Your task to perform on an android device: Open calendar and show me the fourth week of next month Image 0: 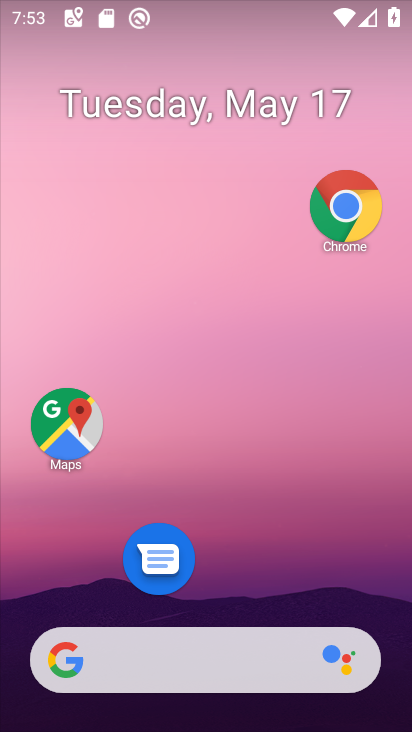
Step 0: drag from (204, 639) to (199, 79)
Your task to perform on an android device: Open calendar and show me the fourth week of next month Image 1: 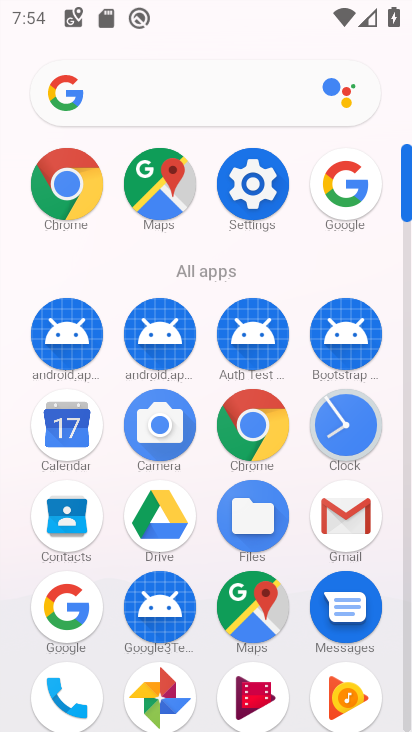
Step 1: drag from (213, 388) to (318, 44)
Your task to perform on an android device: Open calendar and show me the fourth week of next month Image 2: 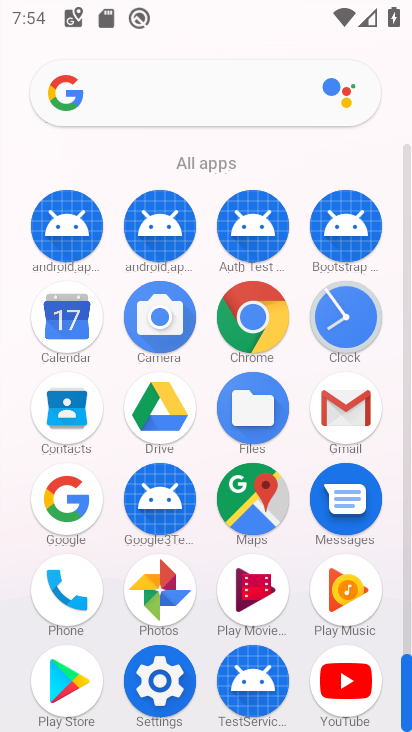
Step 2: click (65, 325)
Your task to perform on an android device: Open calendar and show me the fourth week of next month Image 3: 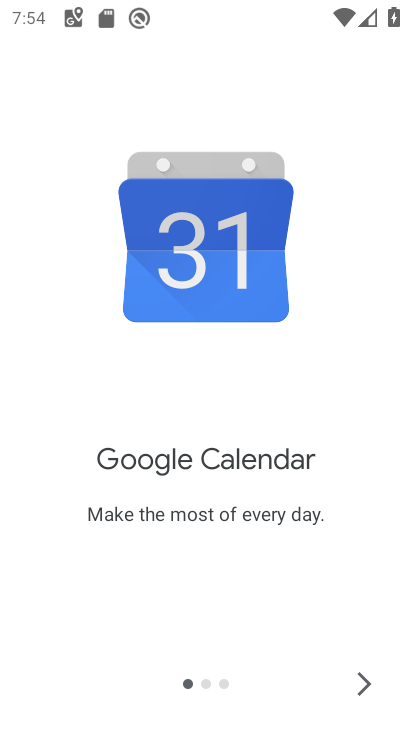
Step 3: click (370, 687)
Your task to perform on an android device: Open calendar and show me the fourth week of next month Image 4: 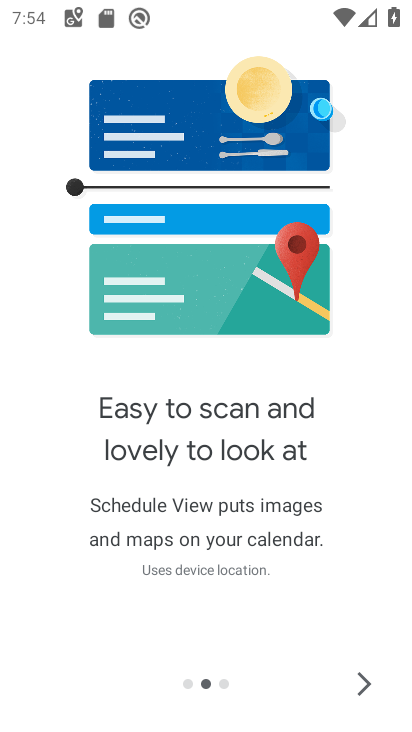
Step 4: click (373, 694)
Your task to perform on an android device: Open calendar and show me the fourth week of next month Image 5: 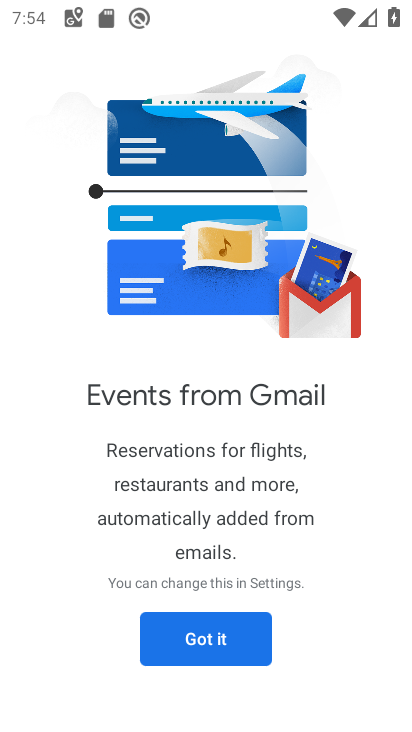
Step 5: click (224, 644)
Your task to perform on an android device: Open calendar and show me the fourth week of next month Image 6: 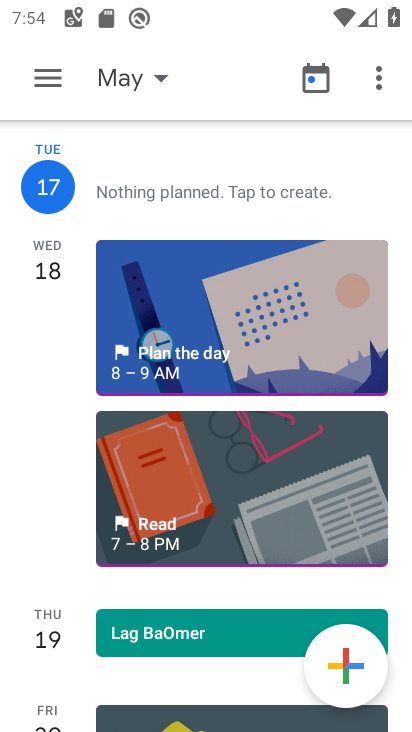
Step 6: click (148, 92)
Your task to perform on an android device: Open calendar and show me the fourth week of next month Image 7: 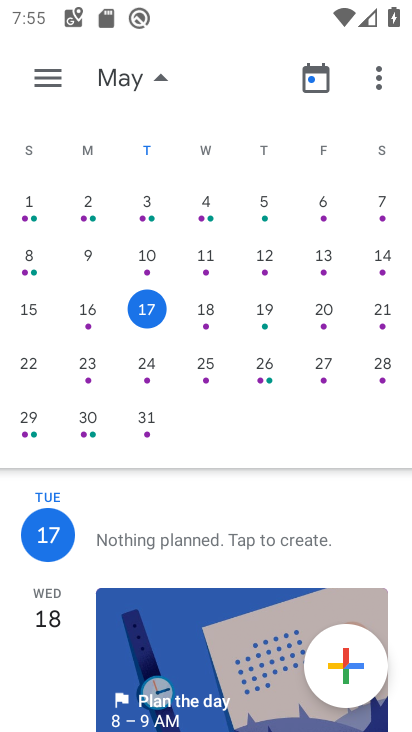
Step 7: drag from (361, 361) to (34, 539)
Your task to perform on an android device: Open calendar and show me the fourth week of next month Image 8: 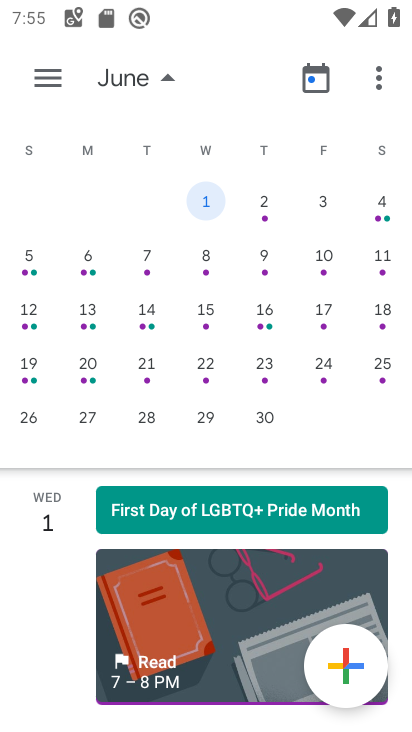
Step 8: drag from (276, 373) to (47, 392)
Your task to perform on an android device: Open calendar and show me the fourth week of next month Image 9: 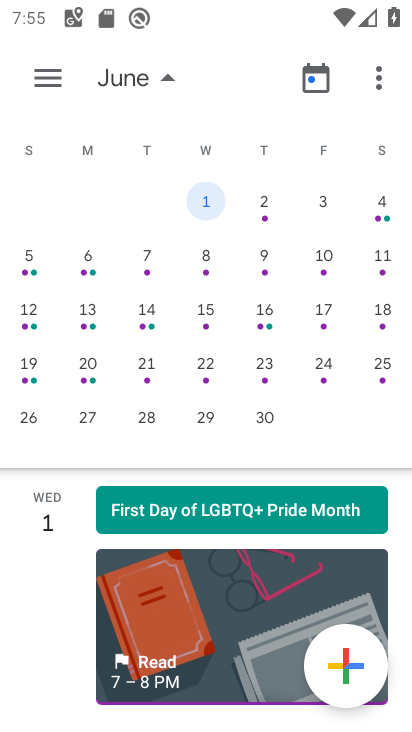
Step 9: click (33, 374)
Your task to perform on an android device: Open calendar and show me the fourth week of next month Image 10: 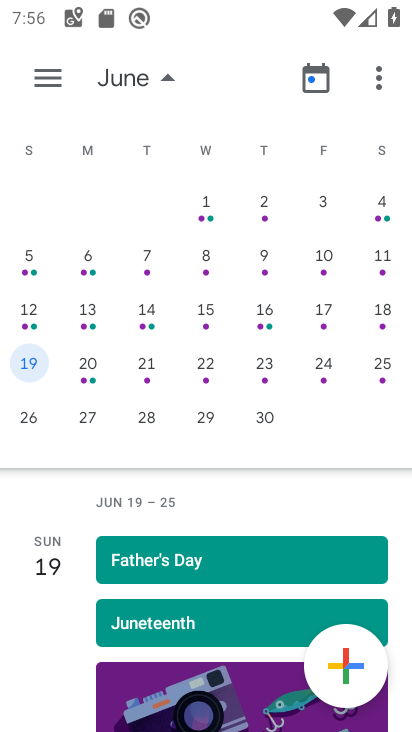
Step 10: click (25, 414)
Your task to perform on an android device: Open calendar and show me the fourth week of next month Image 11: 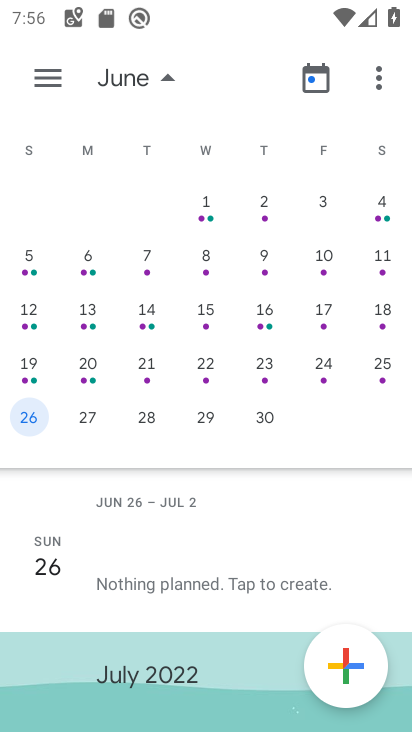
Step 11: task complete